Your task to perform on an android device: Open Chrome and go to the settings page Image 0: 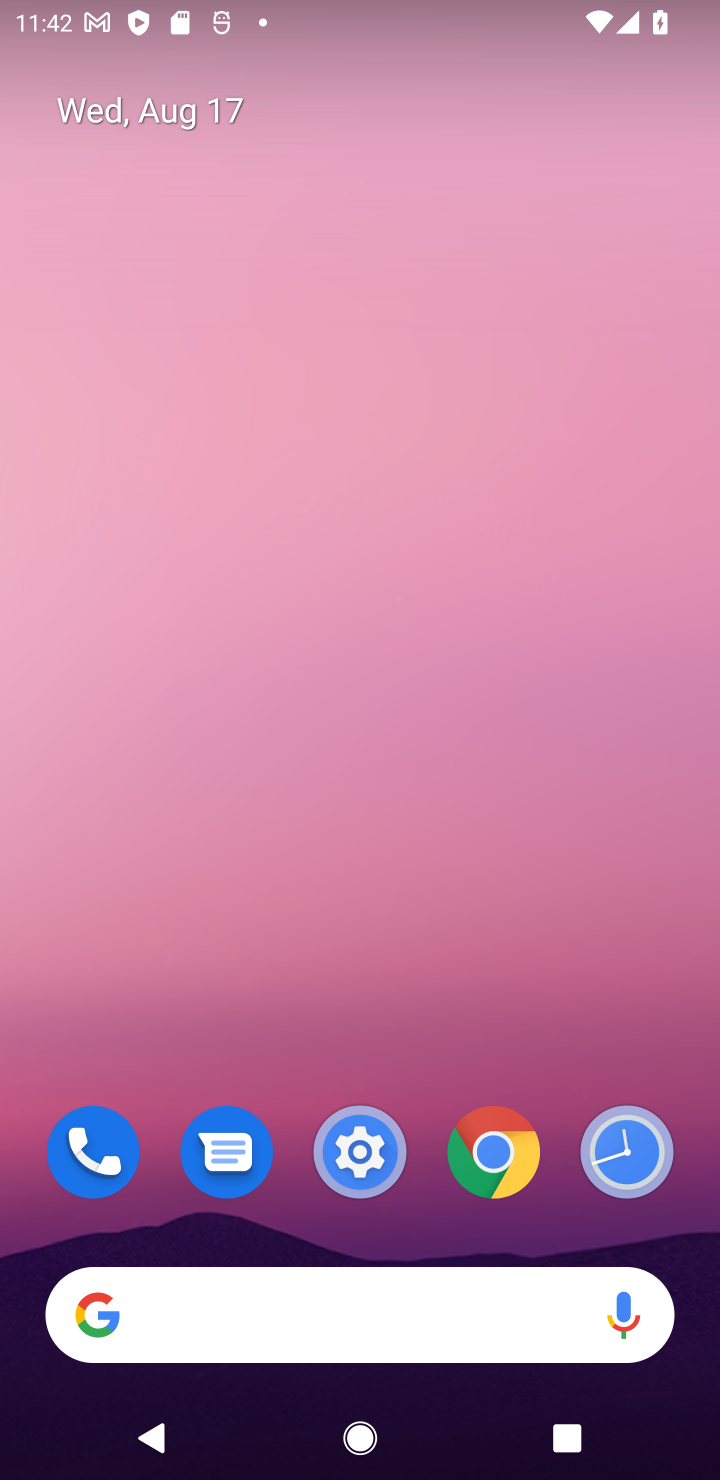
Step 0: drag from (664, 1073) to (323, 11)
Your task to perform on an android device: Open Chrome and go to the settings page Image 1: 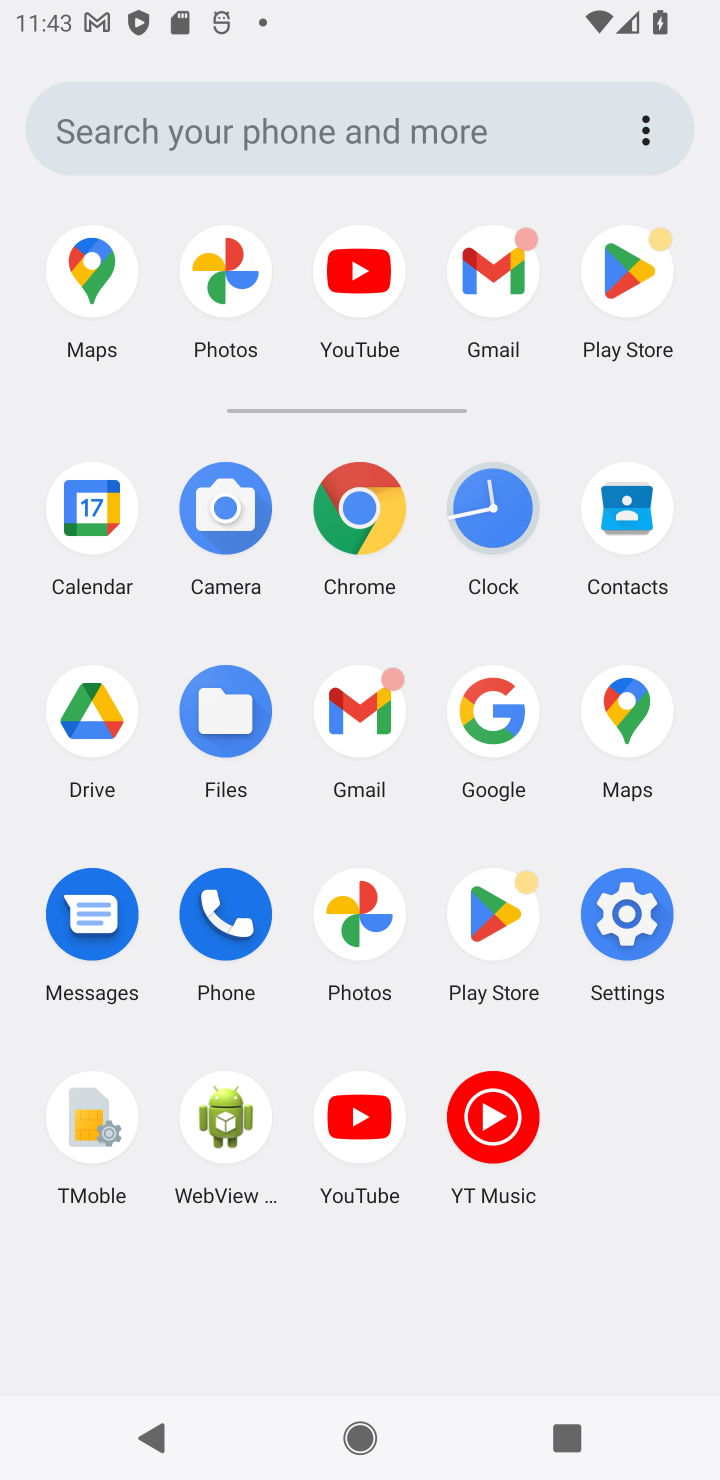
Step 1: click (668, 910)
Your task to perform on an android device: Open Chrome and go to the settings page Image 2: 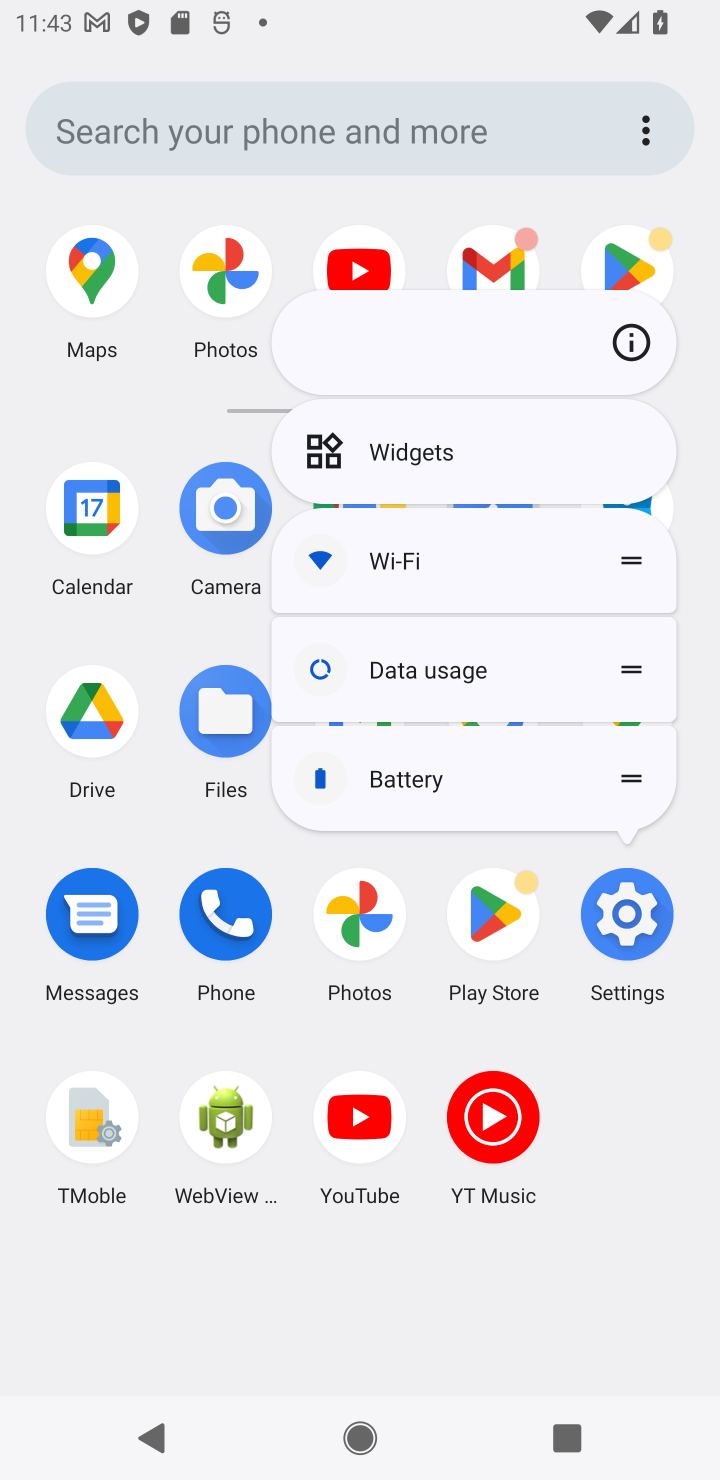
Step 2: click (629, 910)
Your task to perform on an android device: Open Chrome and go to the settings page Image 3: 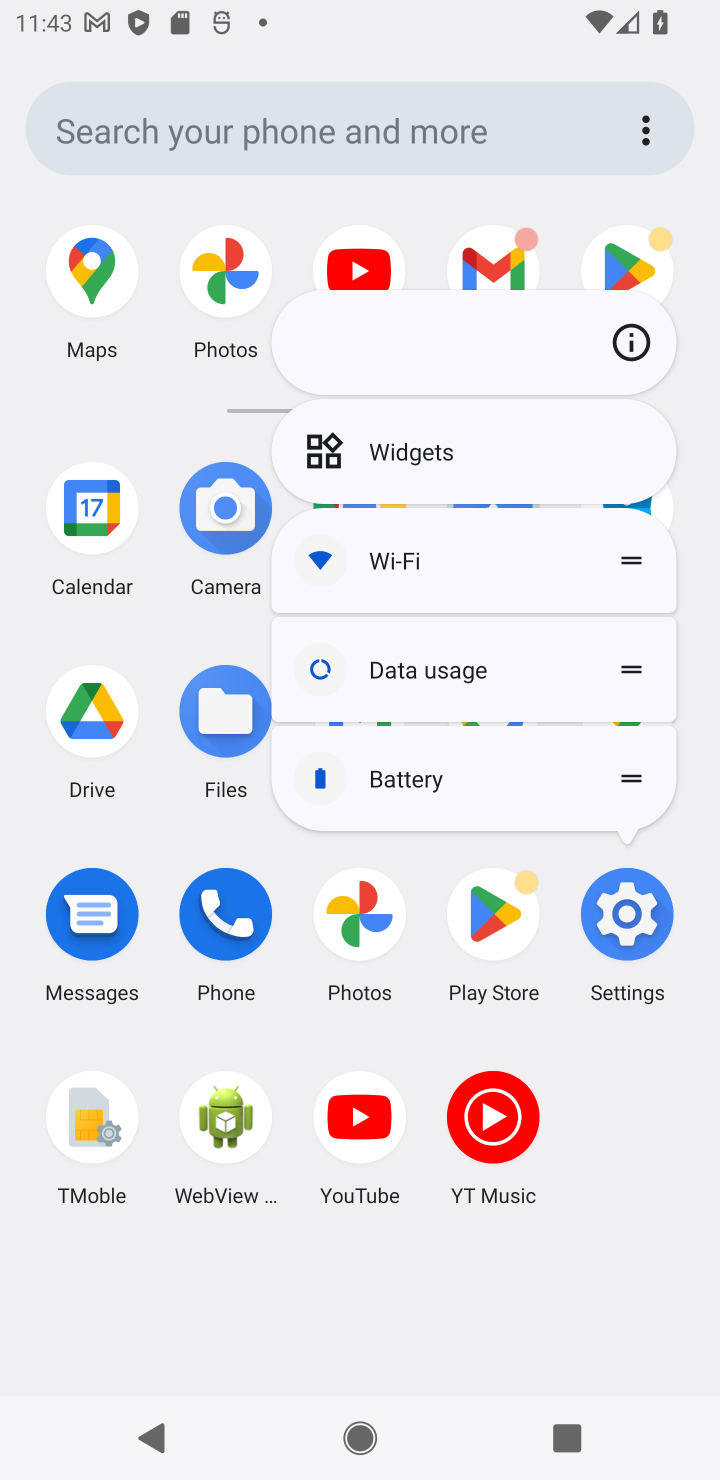
Step 3: click (629, 910)
Your task to perform on an android device: Open Chrome and go to the settings page Image 4: 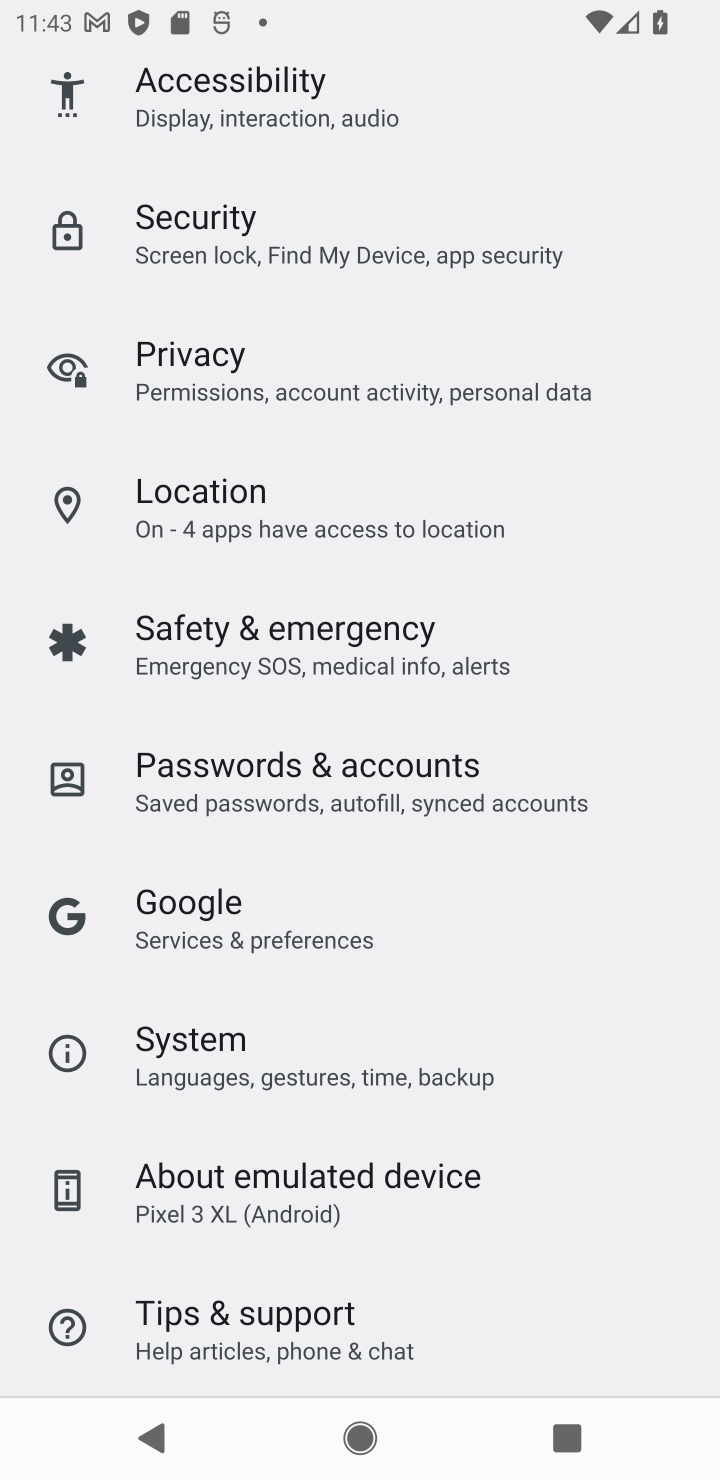
Step 4: task complete